Your task to perform on an android device: check battery use Image 0: 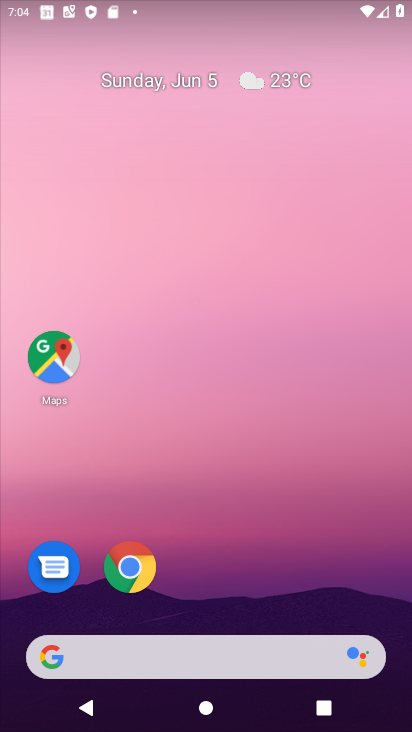
Step 0: drag from (326, 457) to (210, 6)
Your task to perform on an android device: check battery use Image 1: 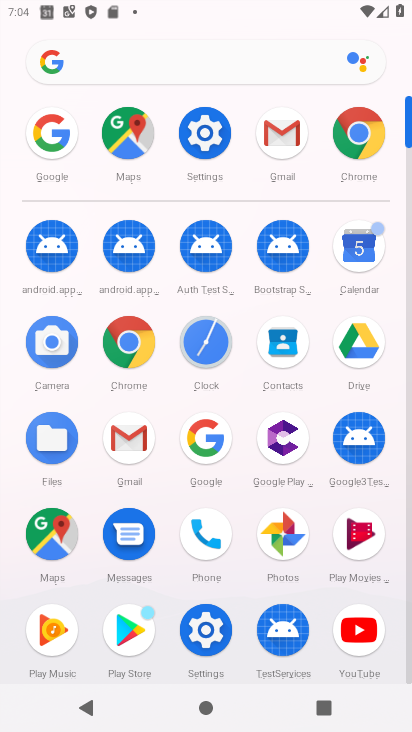
Step 1: click (205, 134)
Your task to perform on an android device: check battery use Image 2: 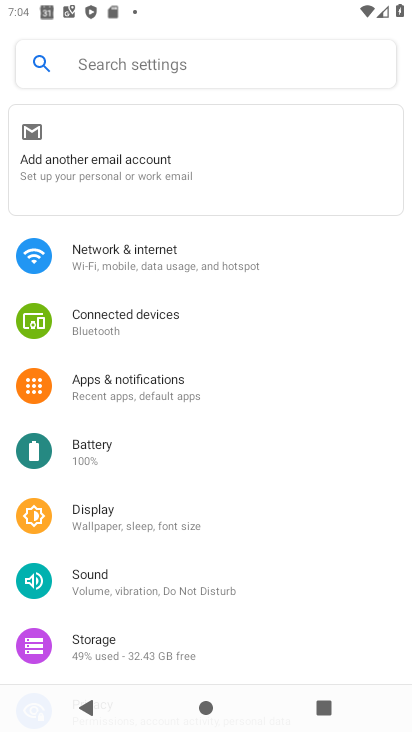
Step 2: drag from (133, 609) to (147, 375)
Your task to perform on an android device: check battery use Image 3: 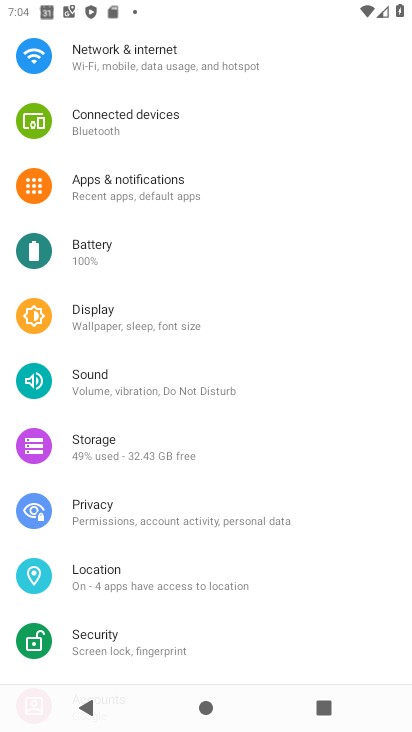
Step 3: click (147, 368)
Your task to perform on an android device: check battery use Image 4: 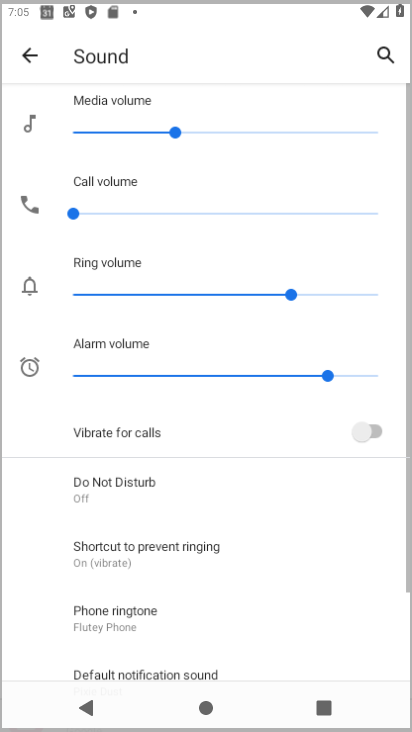
Step 4: click (106, 244)
Your task to perform on an android device: check battery use Image 5: 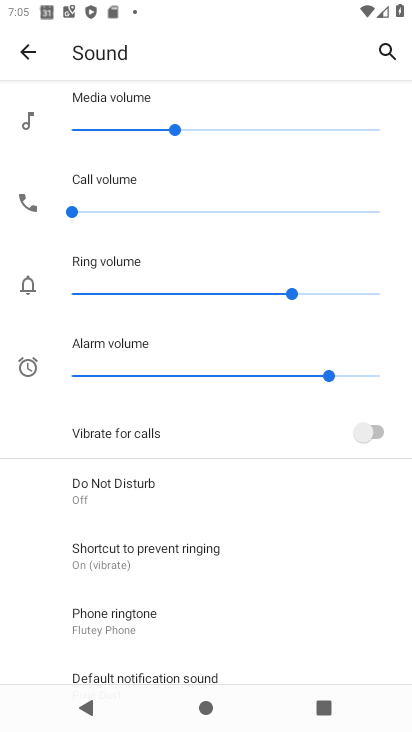
Step 5: press back button
Your task to perform on an android device: check battery use Image 6: 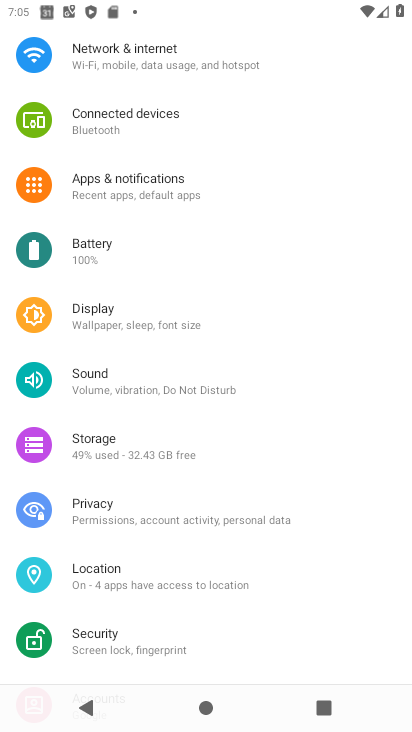
Step 6: click (96, 251)
Your task to perform on an android device: check battery use Image 7: 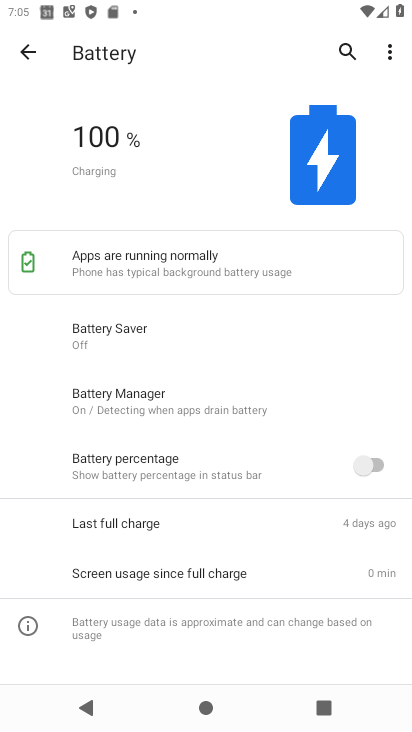
Step 7: click (392, 40)
Your task to perform on an android device: check battery use Image 8: 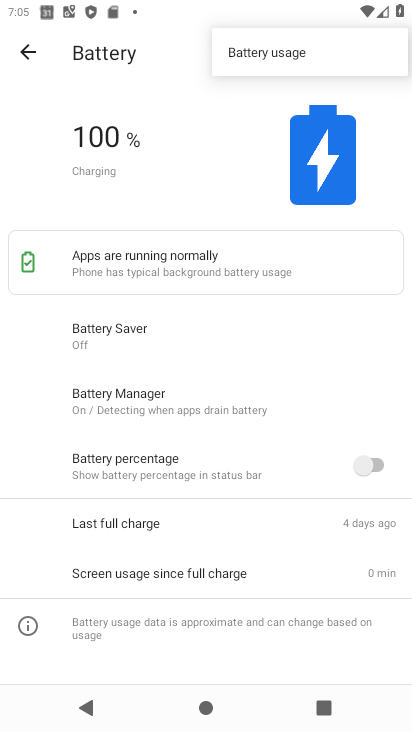
Step 8: click (308, 55)
Your task to perform on an android device: check battery use Image 9: 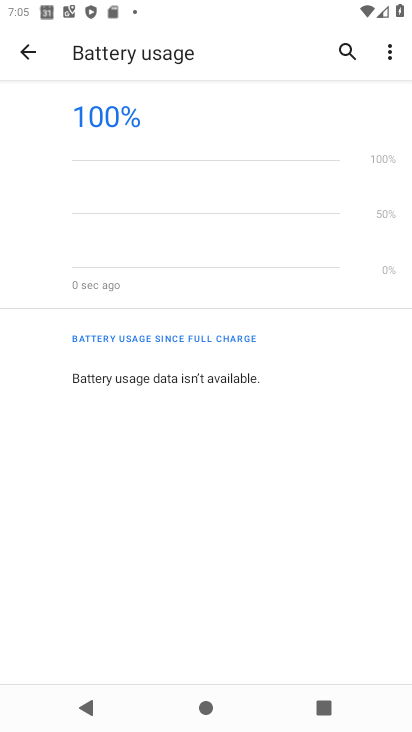
Step 9: task complete